Your task to perform on an android device: uninstall "Truecaller" Image 0: 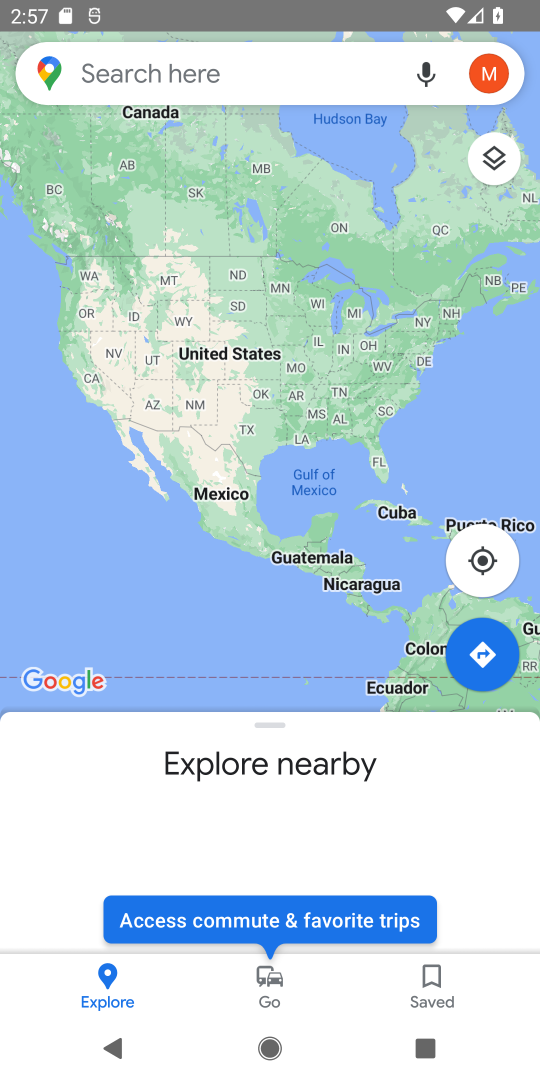
Step 0: press home button
Your task to perform on an android device: uninstall "Truecaller" Image 1: 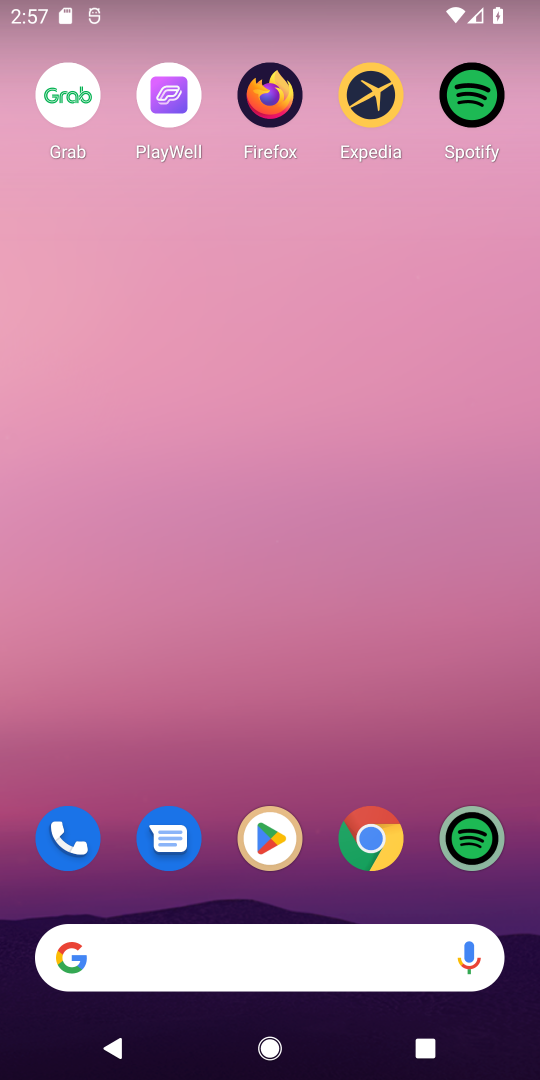
Step 1: click (268, 829)
Your task to perform on an android device: uninstall "Truecaller" Image 2: 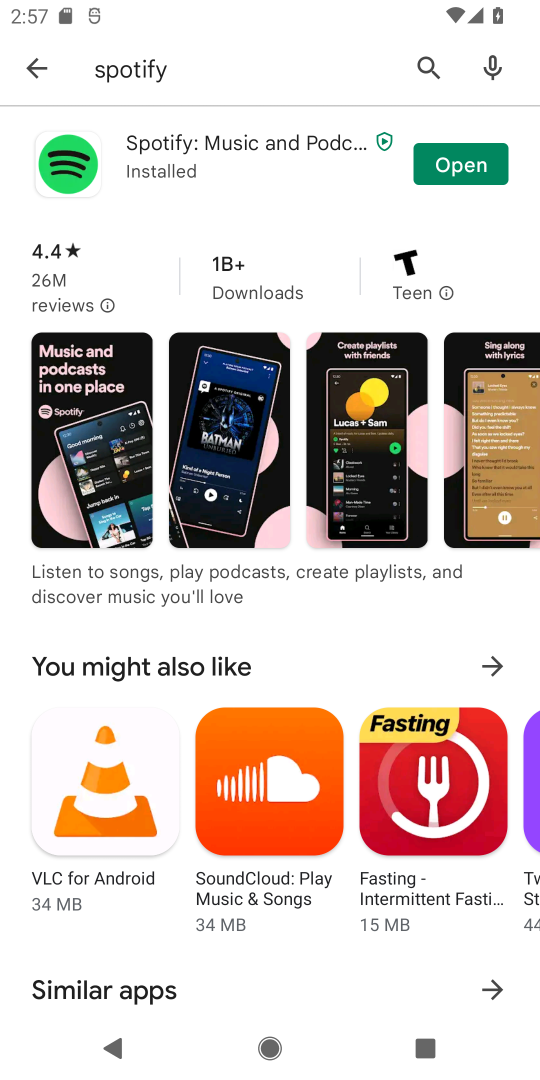
Step 2: click (26, 63)
Your task to perform on an android device: uninstall "Truecaller" Image 3: 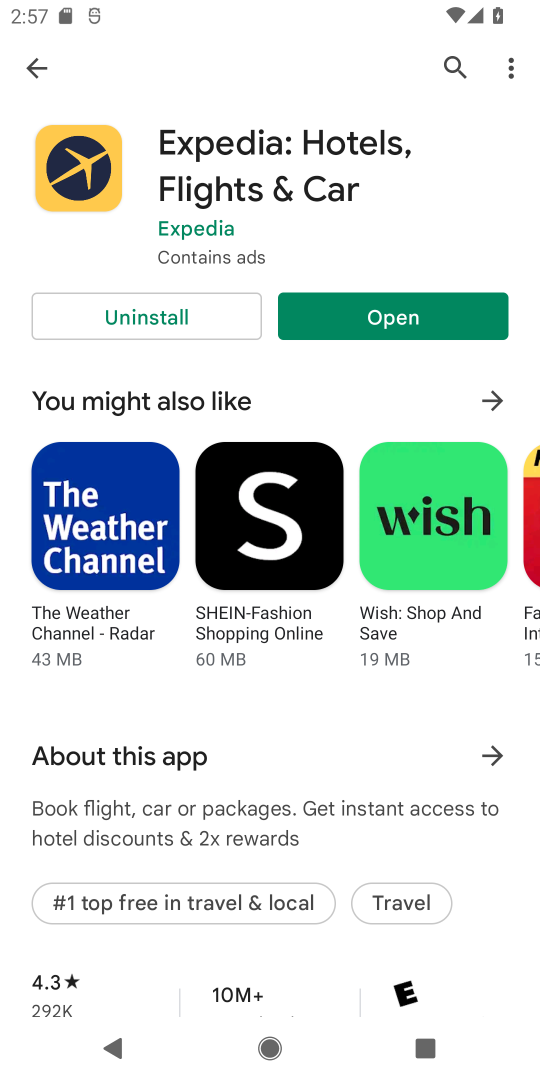
Step 3: click (452, 55)
Your task to perform on an android device: uninstall "Truecaller" Image 4: 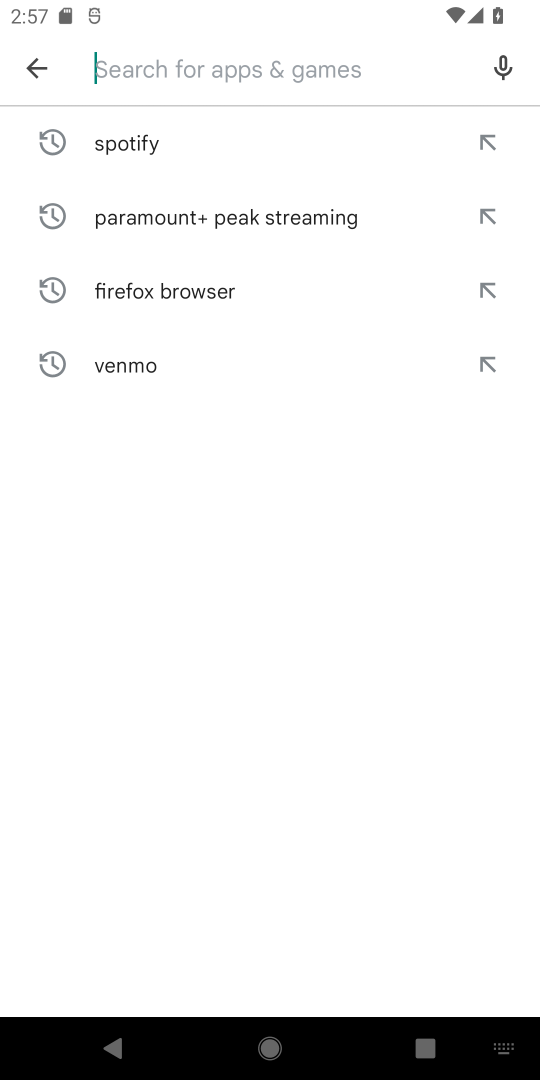
Step 4: type "Truecaller"
Your task to perform on an android device: uninstall "Truecaller" Image 5: 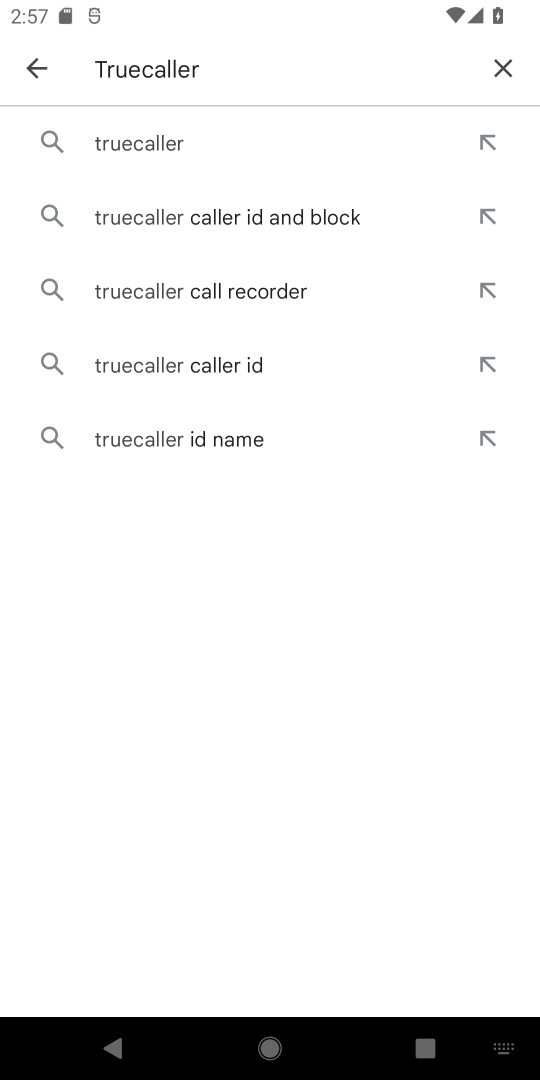
Step 5: click (169, 135)
Your task to perform on an android device: uninstall "Truecaller" Image 6: 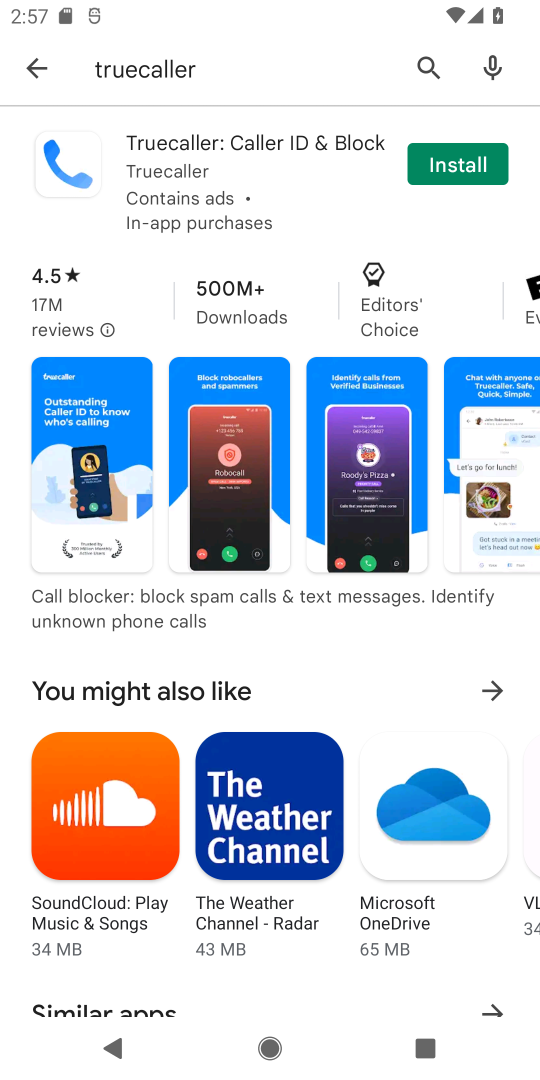
Step 6: task complete